Your task to perform on an android device: Is it going to rain this weekend? Image 0: 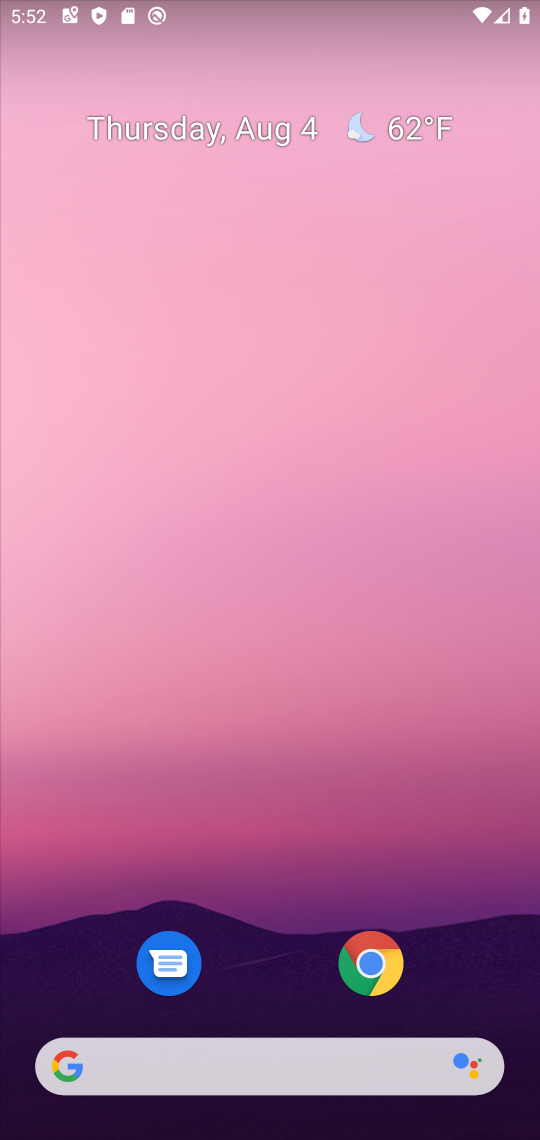
Step 0: click (247, 1063)
Your task to perform on an android device: Is it going to rain this weekend? Image 1: 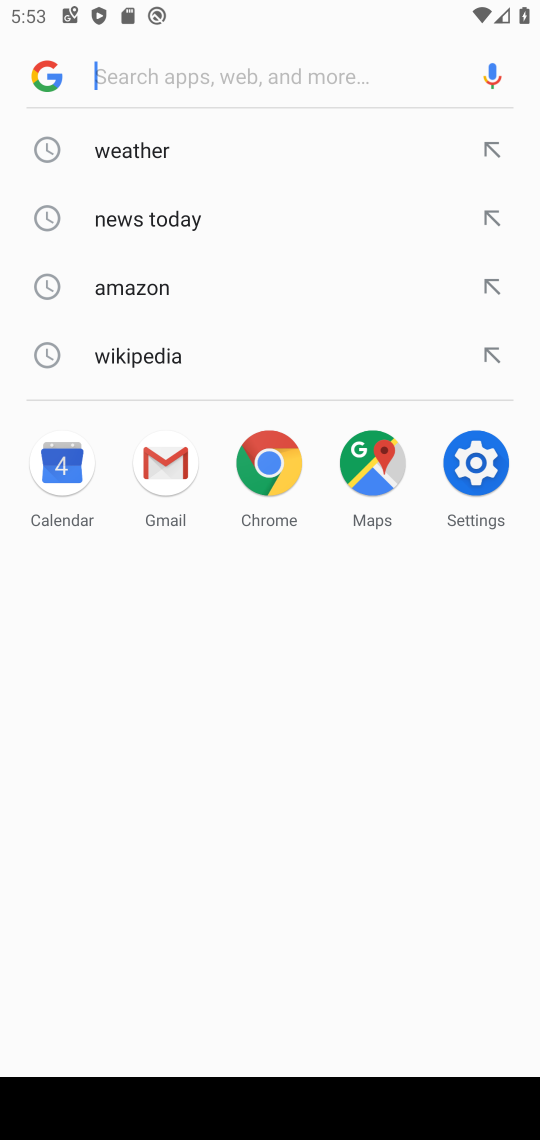
Step 1: click (132, 141)
Your task to perform on an android device: Is it going to rain this weekend? Image 2: 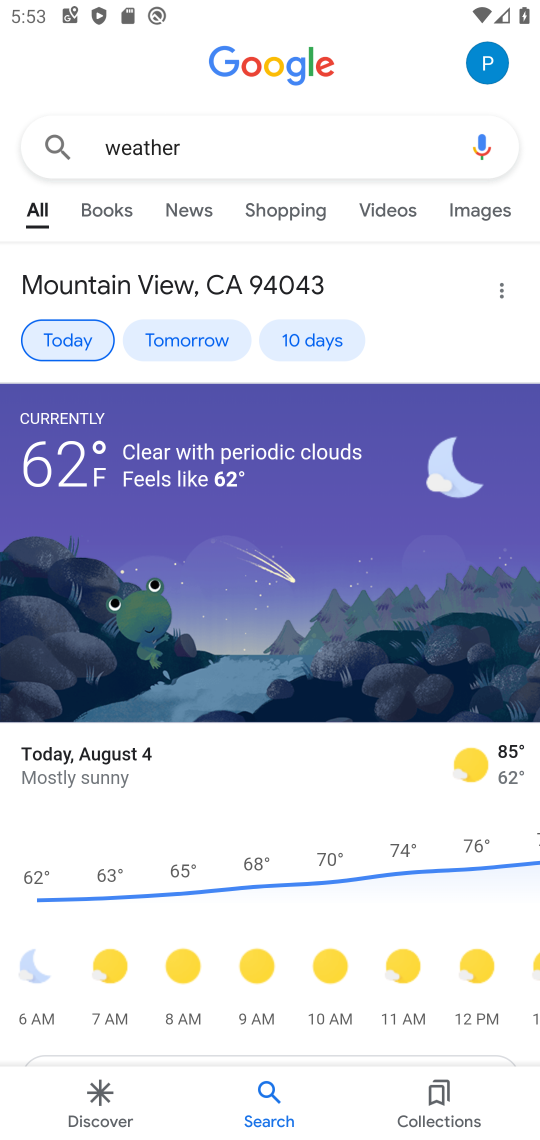
Step 2: click (300, 335)
Your task to perform on an android device: Is it going to rain this weekend? Image 3: 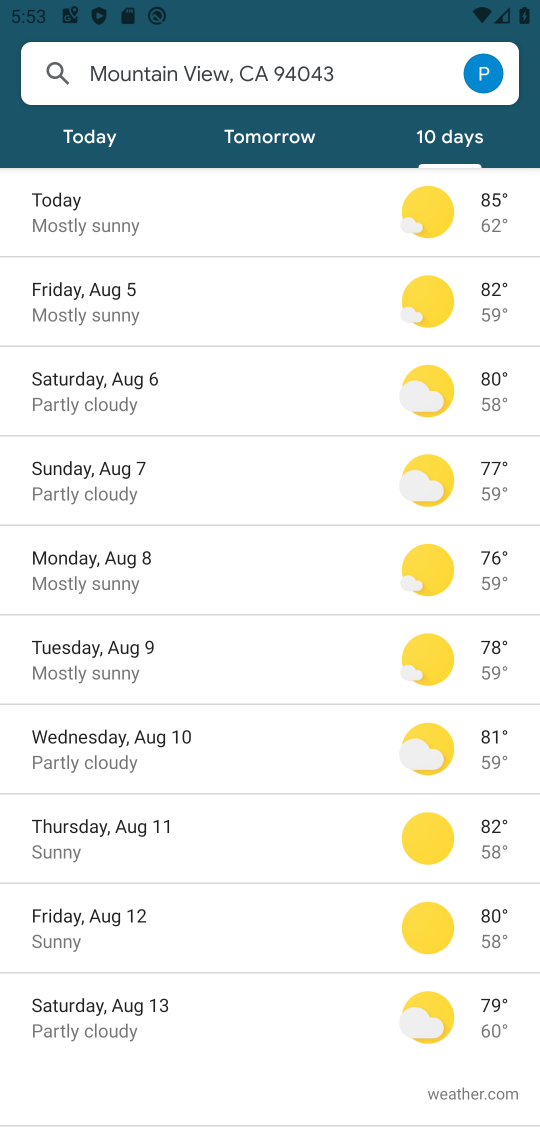
Step 3: task complete